Your task to perform on an android device: turn off smart reply in the gmail app Image 0: 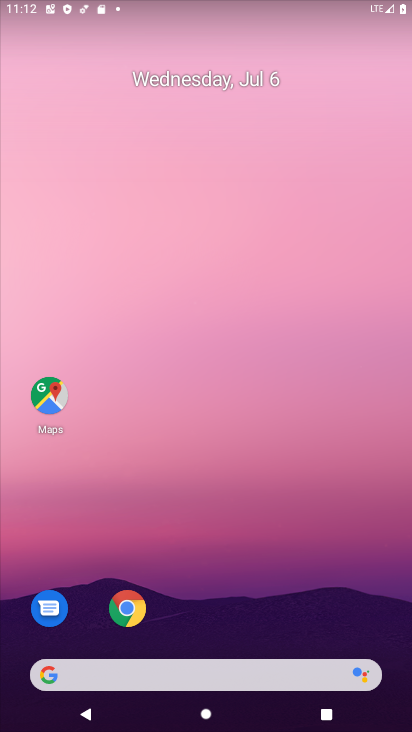
Step 0: drag from (176, 653) to (306, 154)
Your task to perform on an android device: turn off smart reply in the gmail app Image 1: 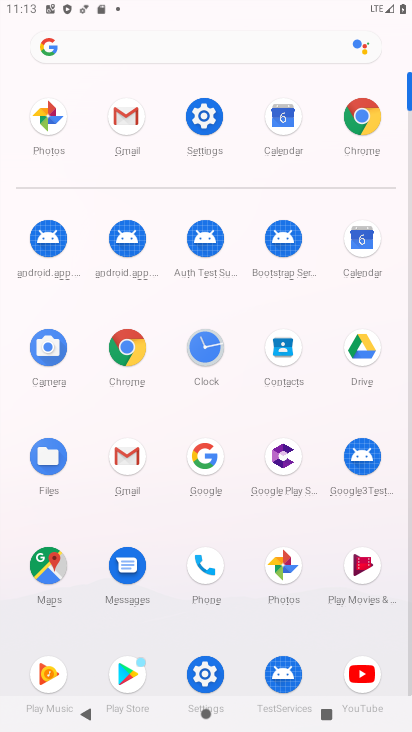
Step 1: click (122, 454)
Your task to perform on an android device: turn off smart reply in the gmail app Image 2: 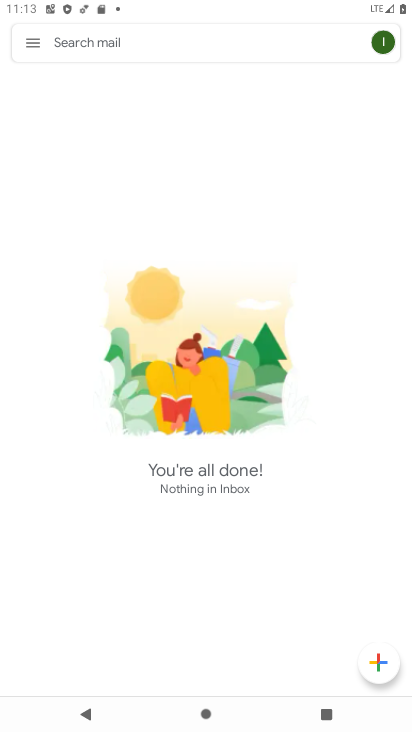
Step 2: click (31, 41)
Your task to perform on an android device: turn off smart reply in the gmail app Image 3: 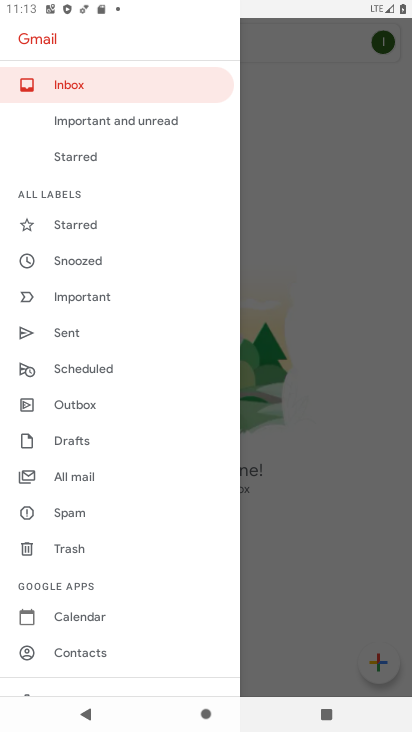
Step 3: drag from (67, 654) to (72, 329)
Your task to perform on an android device: turn off smart reply in the gmail app Image 4: 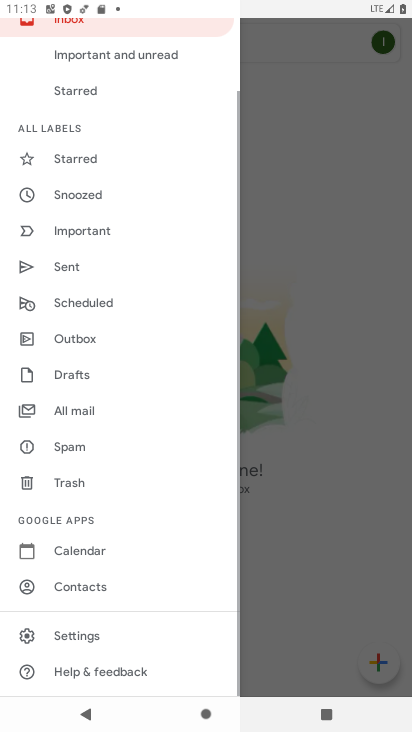
Step 4: click (83, 638)
Your task to perform on an android device: turn off smart reply in the gmail app Image 5: 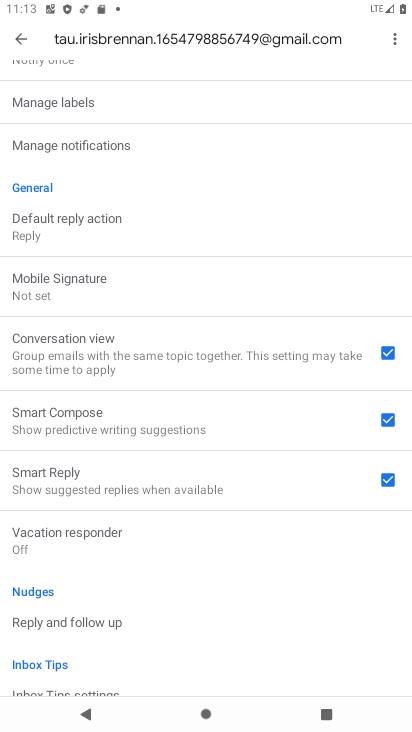
Step 5: drag from (52, 655) to (111, 232)
Your task to perform on an android device: turn off smart reply in the gmail app Image 6: 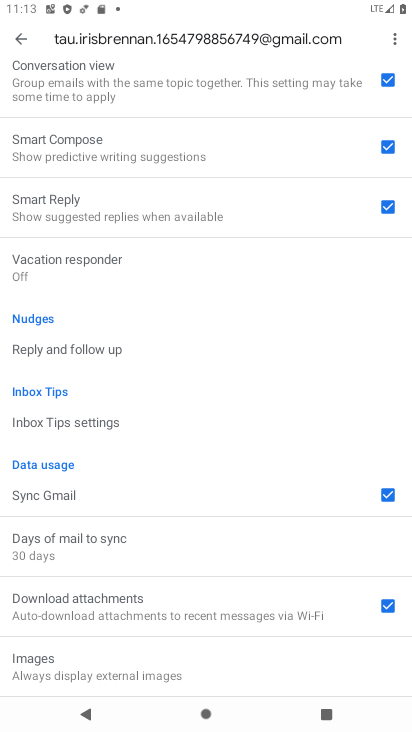
Step 6: drag from (49, 672) to (123, 305)
Your task to perform on an android device: turn off smart reply in the gmail app Image 7: 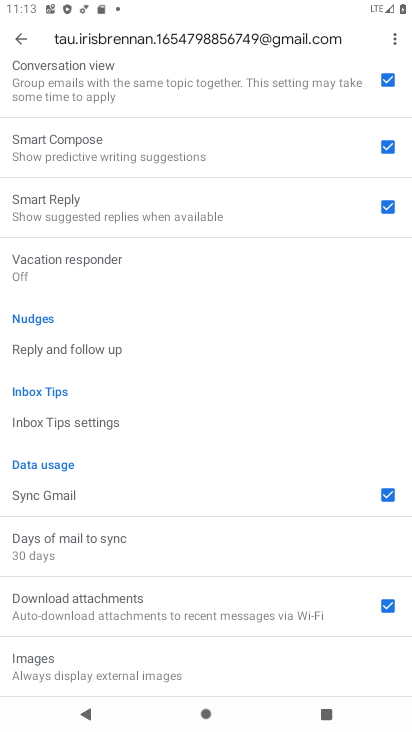
Step 7: click (385, 210)
Your task to perform on an android device: turn off smart reply in the gmail app Image 8: 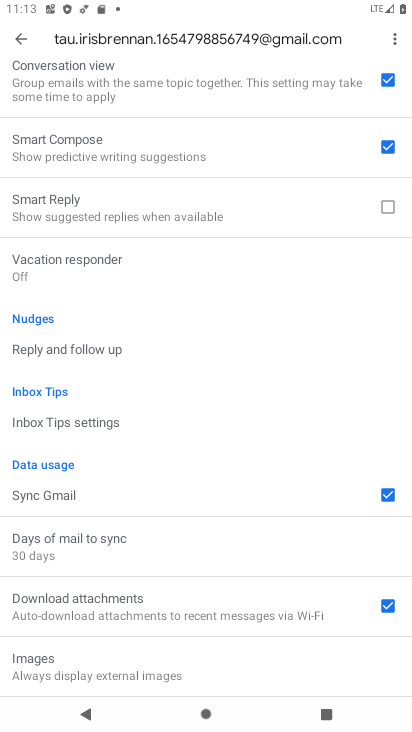
Step 8: task complete